Your task to perform on an android device: turn on data saver in the chrome app Image 0: 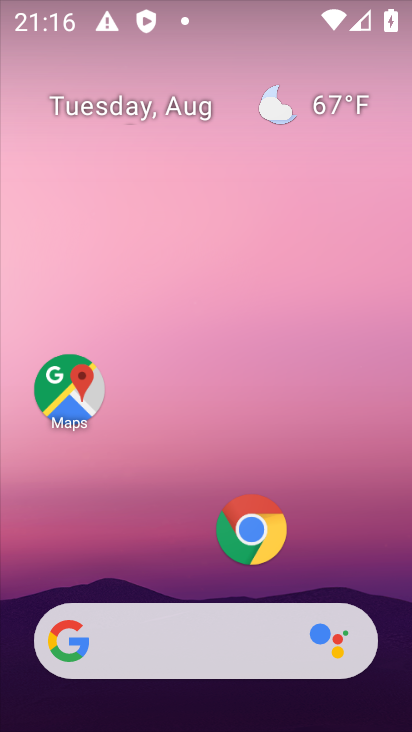
Step 0: drag from (192, 567) to (208, 111)
Your task to perform on an android device: turn on data saver in the chrome app Image 1: 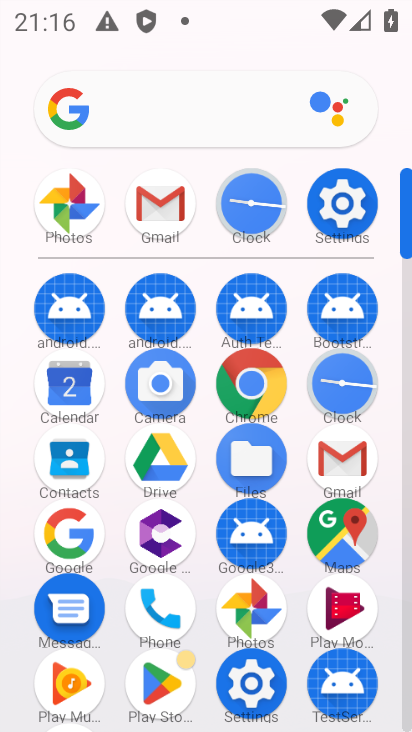
Step 1: click (251, 379)
Your task to perform on an android device: turn on data saver in the chrome app Image 2: 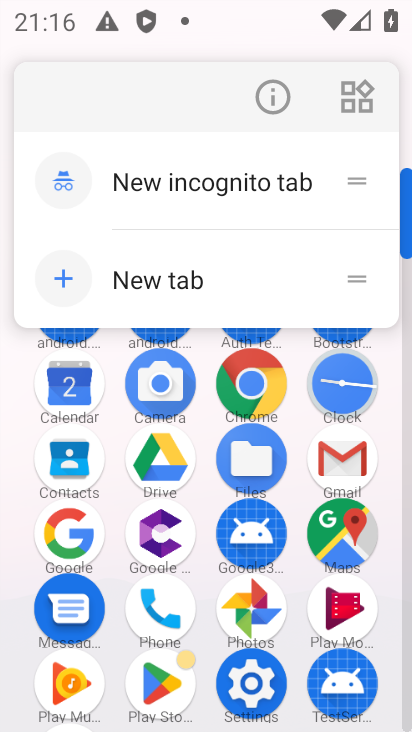
Step 2: click (287, 101)
Your task to perform on an android device: turn on data saver in the chrome app Image 3: 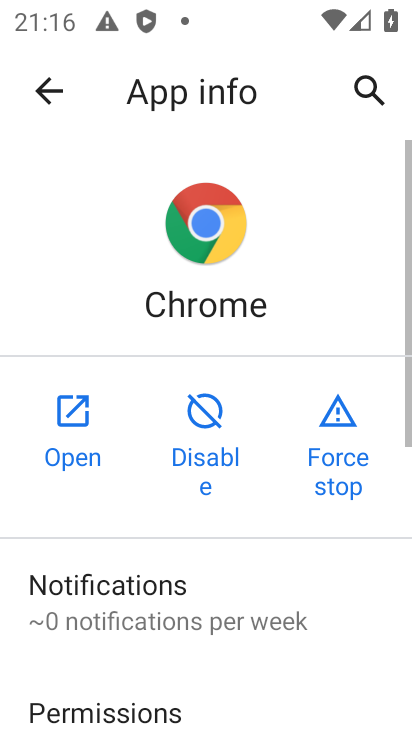
Step 3: click (65, 407)
Your task to perform on an android device: turn on data saver in the chrome app Image 4: 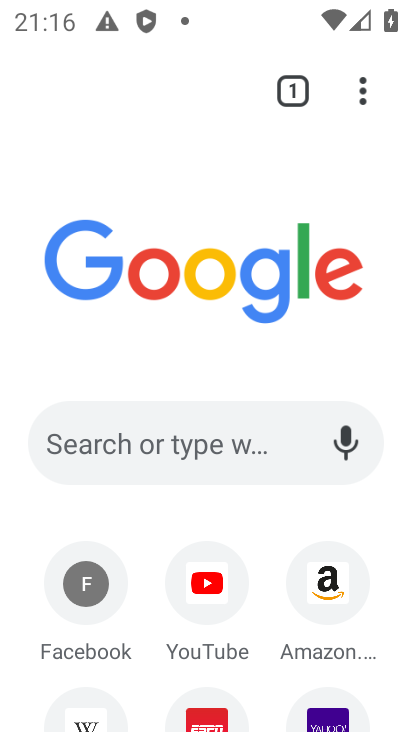
Step 4: drag from (259, 638) to (261, 358)
Your task to perform on an android device: turn on data saver in the chrome app Image 5: 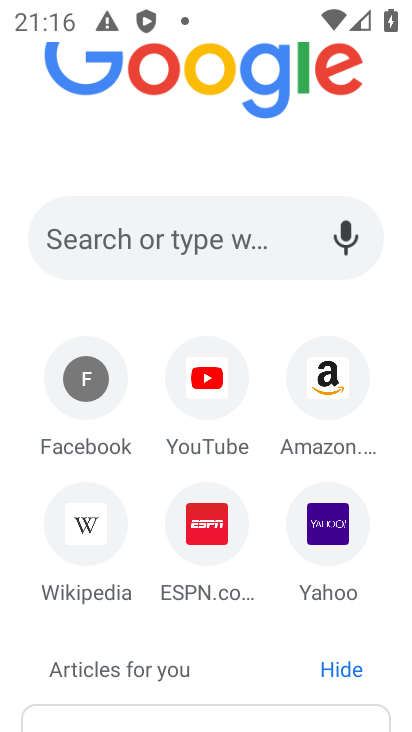
Step 5: drag from (198, 639) to (248, 291)
Your task to perform on an android device: turn on data saver in the chrome app Image 6: 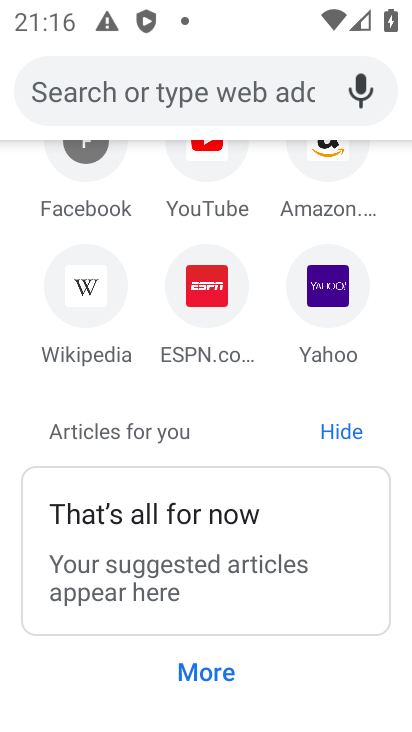
Step 6: drag from (235, 410) to (268, 624)
Your task to perform on an android device: turn on data saver in the chrome app Image 7: 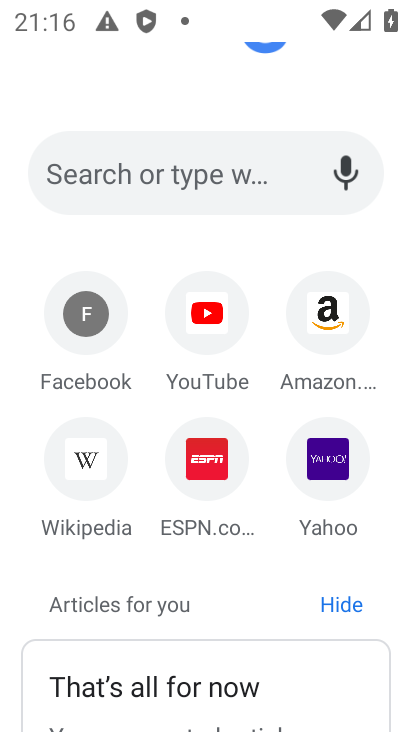
Step 7: drag from (234, 582) to (245, 331)
Your task to perform on an android device: turn on data saver in the chrome app Image 8: 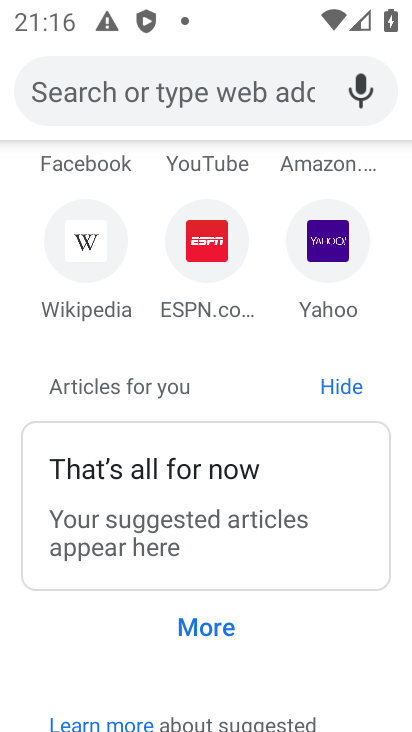
Step 8: drag from (292, 237) to (229, 597)
Your task to perform on an android device: turn on data saver in the chrome app Image 9: 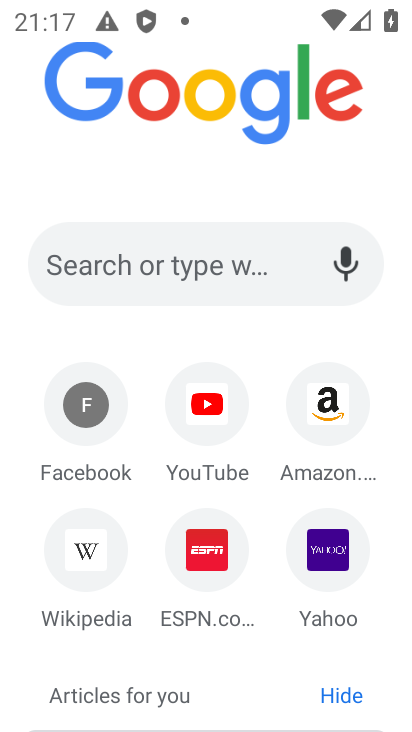
Step 9: drag from (268, 344) to (271, 587)
Your task to perform on an android device: turn on data saver in the chrome app Image 10: 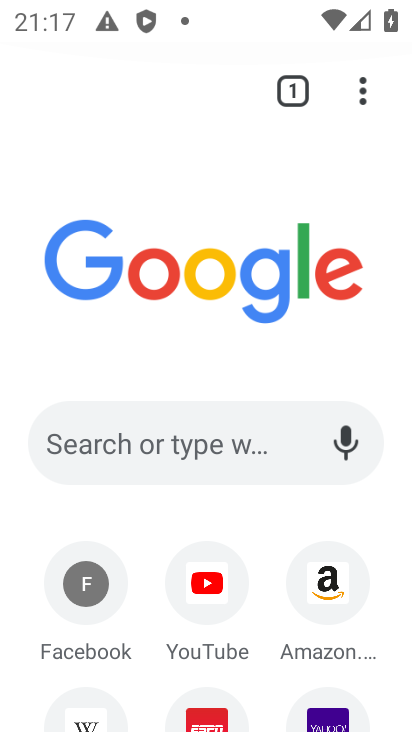
Step 10: drag from (271, 587) to (304, 286)
Your task to perform on an android device: turn on data saver in the chrome app Image 11: 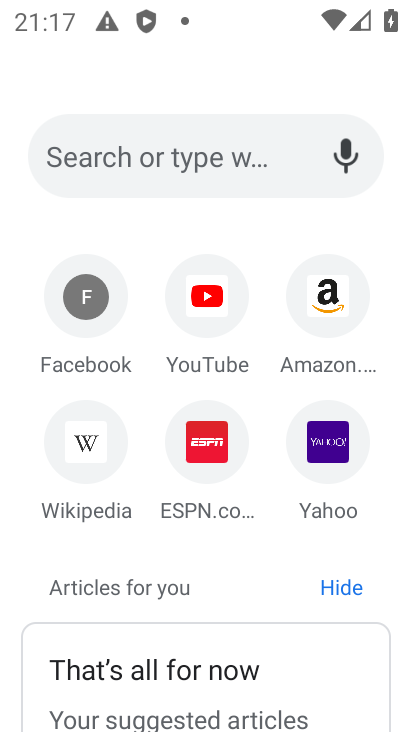
Step 11: drag from (262, 263) to (306, 212)
Your task to perform on an android device: turn on data saver in the chrome app Image 12: 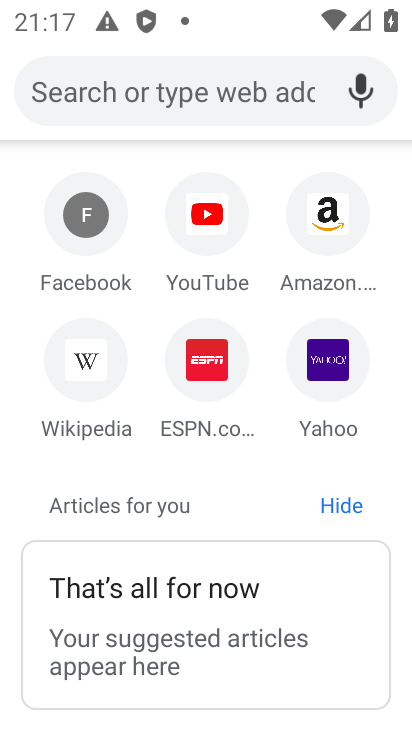
Step 12: drag from (252, 302) to (283, 128)
Your task to perform on an android device: turn on data saver in the chrome app Image 13: 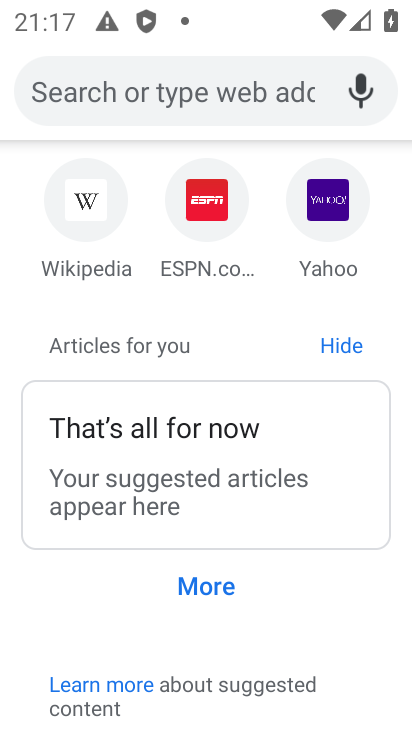
Step 13: drag from (260, 188) to (252, 308)
Your task to perform on an android device: turn on data saver in the chrome app Image 14: 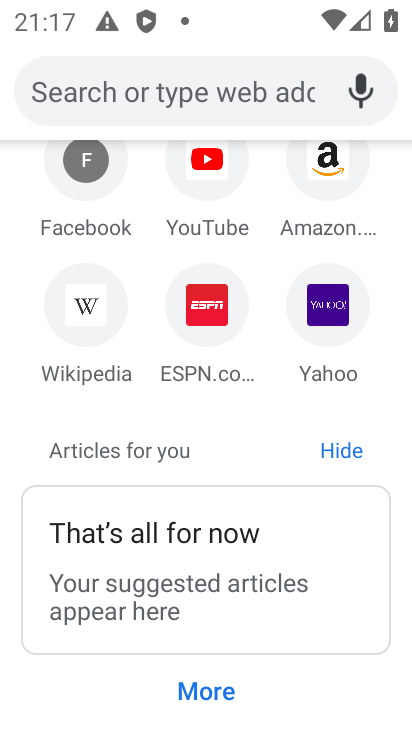
Step 14: drag from (149, 220) to (230, 533)
Your task to perform on an android device: turn on data saver in the chrome app Image 15: 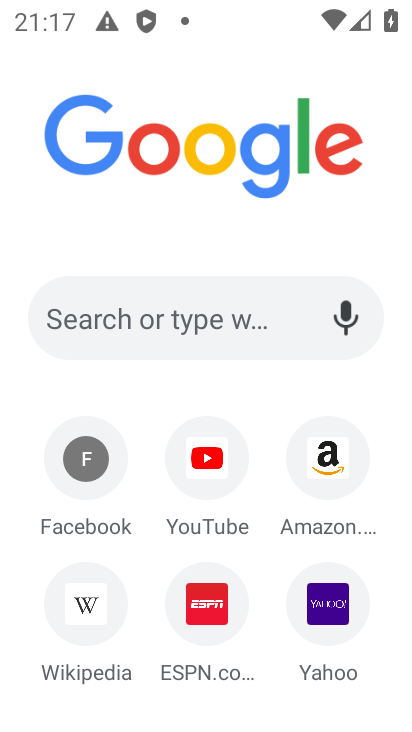
Step 15: drag from (150, 561) to (189, 346)
Your task to perform on an android device: turn on data saver in the chrome app Image 16: 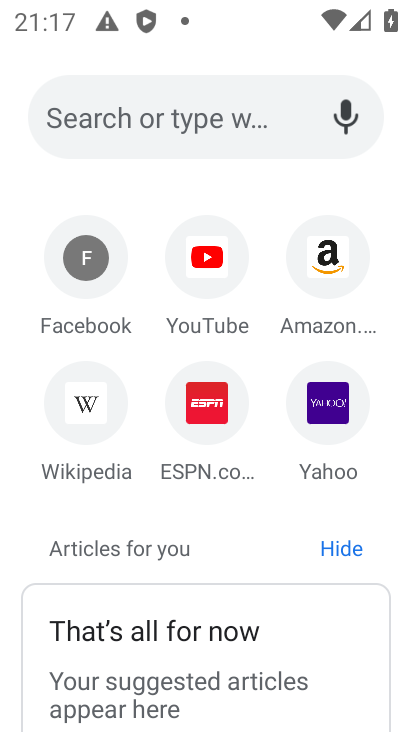
Step 16: drag from (140, 357) to (157, 265)
Your task to perform on an android device: turn on data saver in the chrome app Image 17: 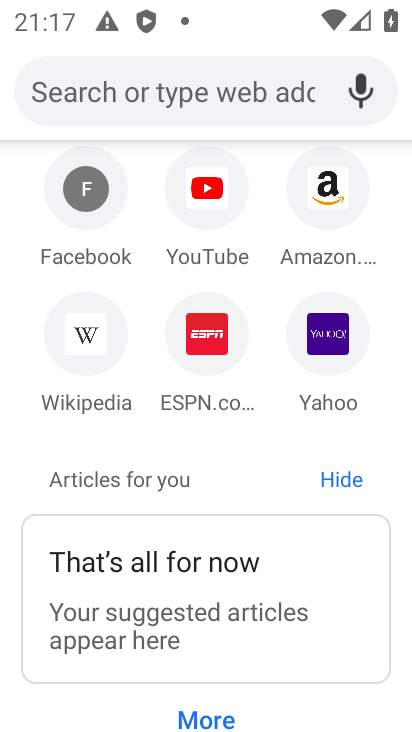
Step 17: drag from (145, 241) to (180, 497)
Your task to perform on an android device: turn on data saver in the chrome app Image 18: 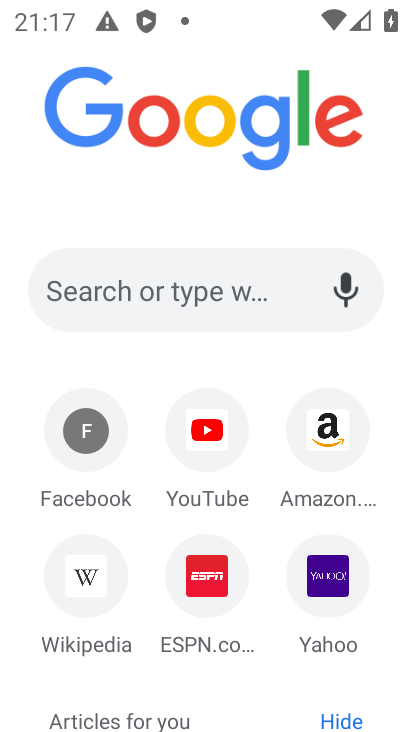
Step 18: drag from (185, 493) to (297, 216)
Your task to perform on an android device: turn on data saver in the chrome app Image 19: 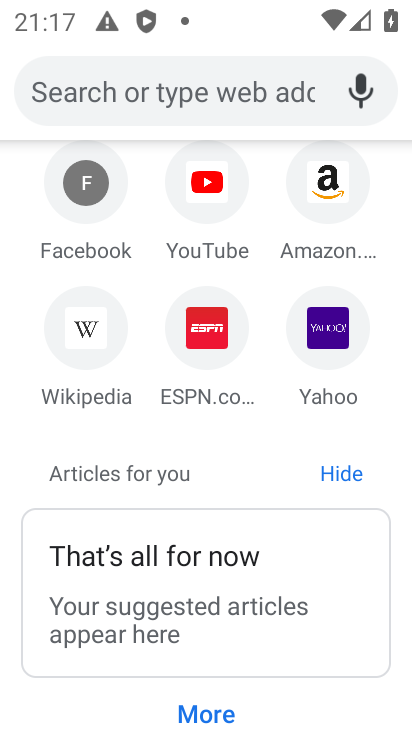
Step 19: drag from (251, 494) to (274, 262)
Your task to perform on an android device: turn on data saver in the chrome app Image 20: 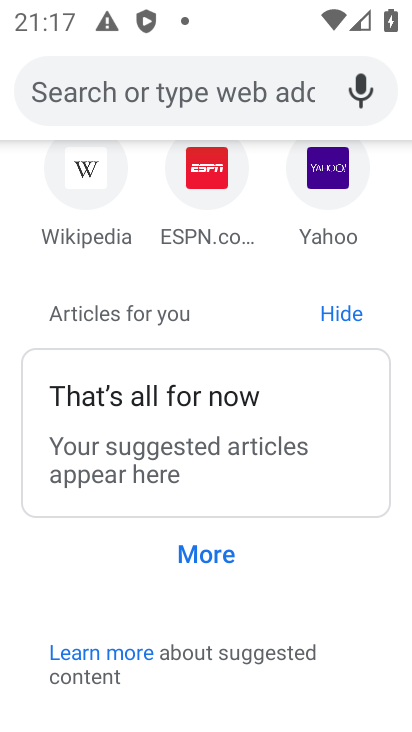
Step 20: drag from (260, 207) to (316, 86)
Your task to perform on an android device: turn on data saver in the chrome app Image 21: 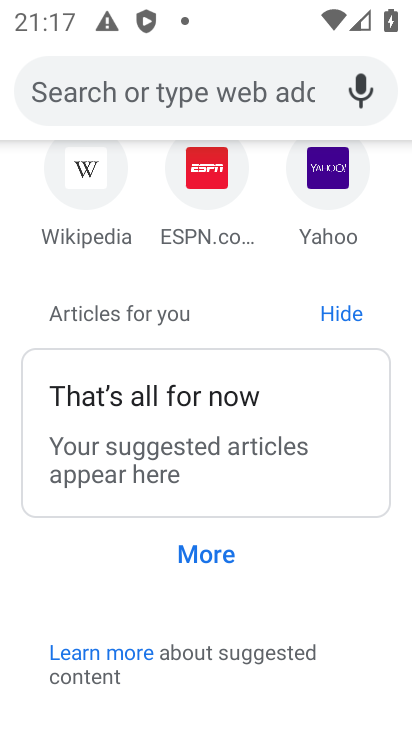
Step 21: drag from (264, 190) to (226, 723)
Your task to perform on an android device: turn on data saver in the chrome app Image 22: 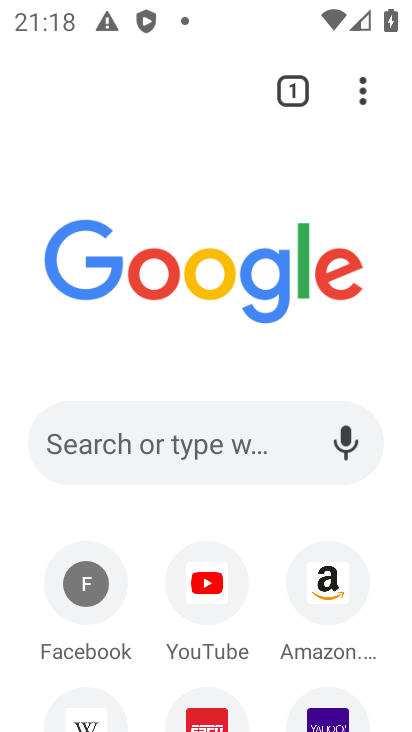
Step 22: drag from (356, 84) to (177, 560)
Your task to perform on an android device: turn on data saver in the chrome app Image 23: 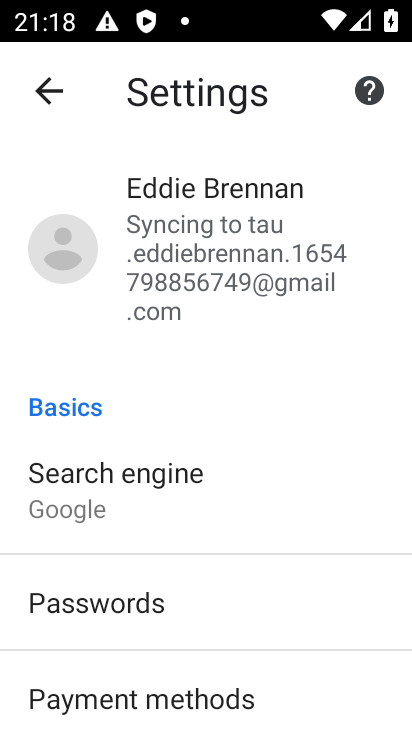
Step 23: drag from (157, 629) to (264, 107)
Your task to perform on an android device: turn on data saver in the chrome app Image 24: 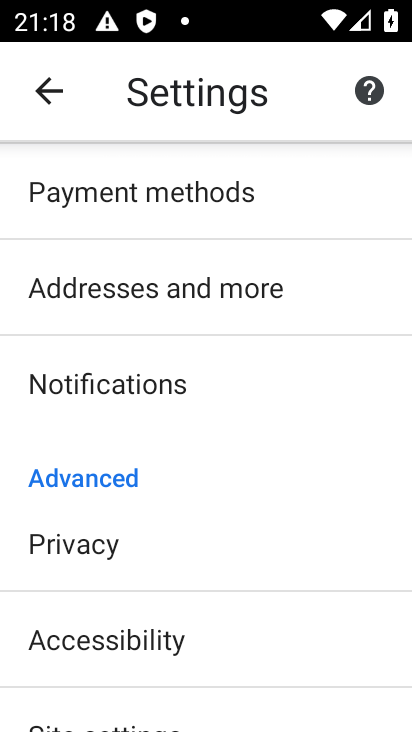
Step 24: drag from (166, 674) to (250, 292)
Your task to perform on an android device: turn on data saver in the chrome app Image 25: 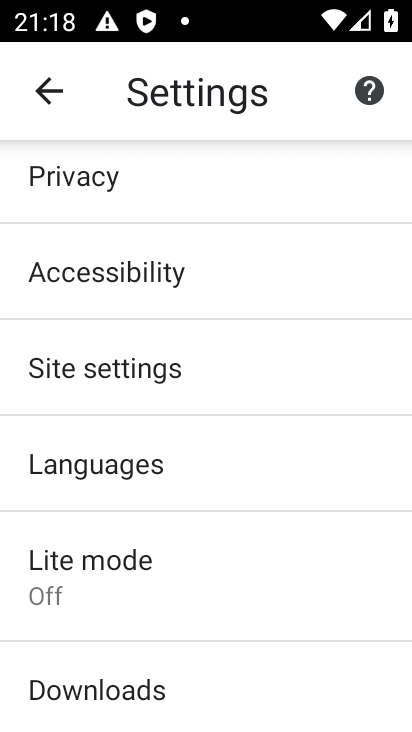
Step 25: click (125, 580)
Your task to perform on an android device: turn on data saver in the chrome app Image 26: 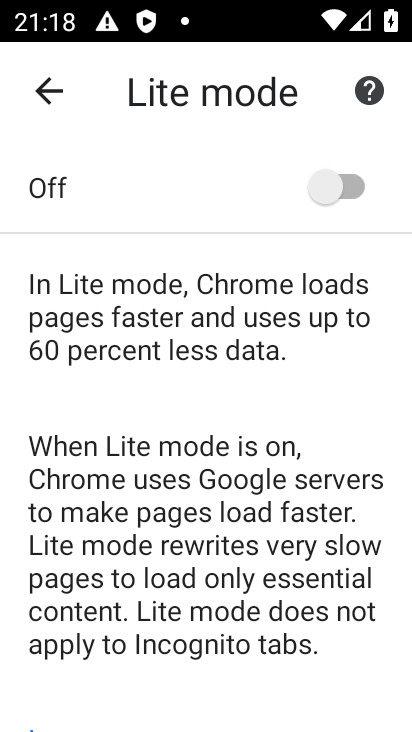
Step 26: click (292, 195)
Your task to perform on an android device: turn on data saver in the chrome app Image 27: 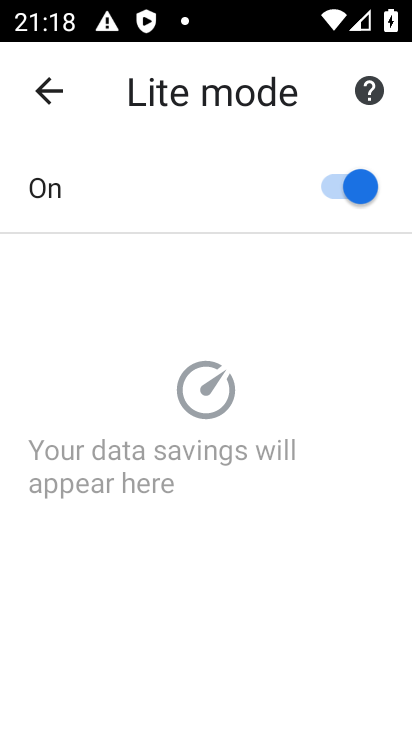
Step 27: task complete